Your task to perform on an android device: uninstall "Pinterest" Image 0: 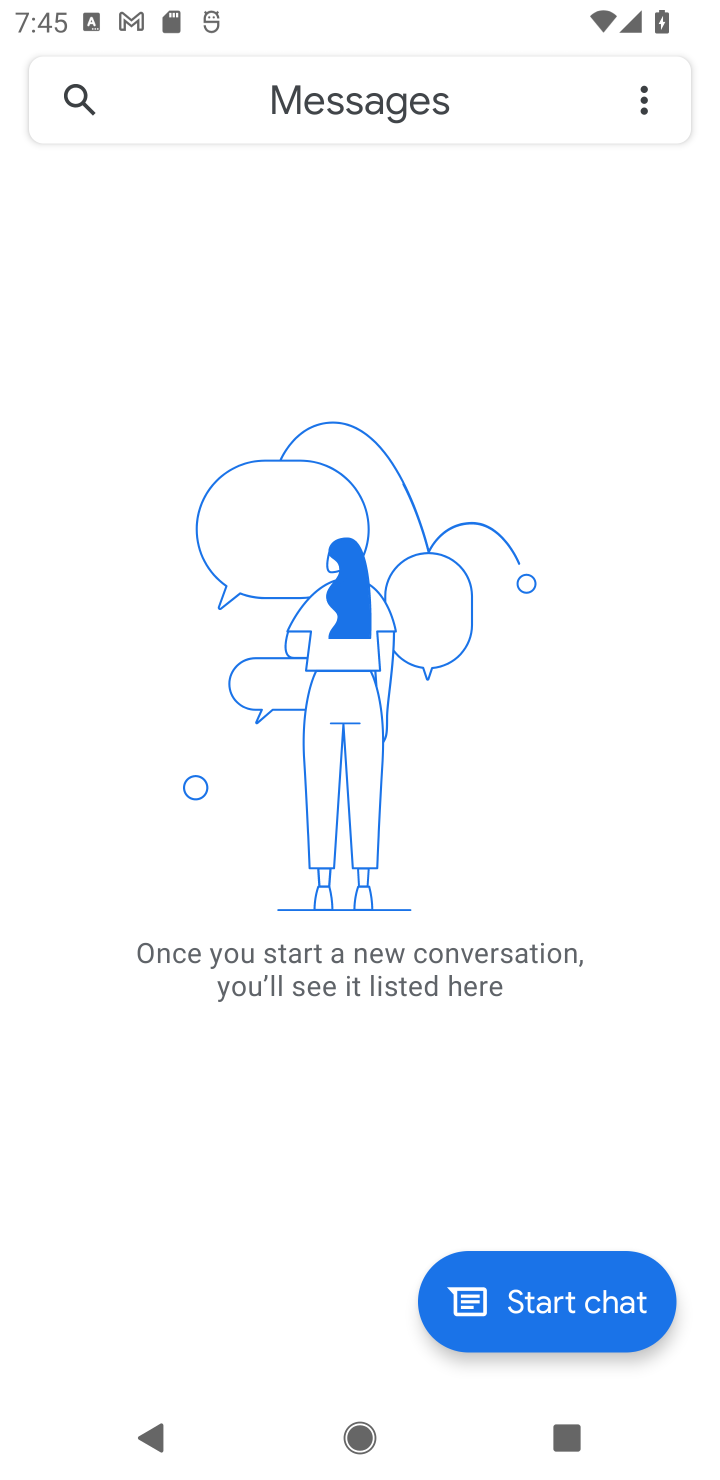
Step 0: press home button
Your task to perform on an android device: uninstall "Pinterest" Image 1: 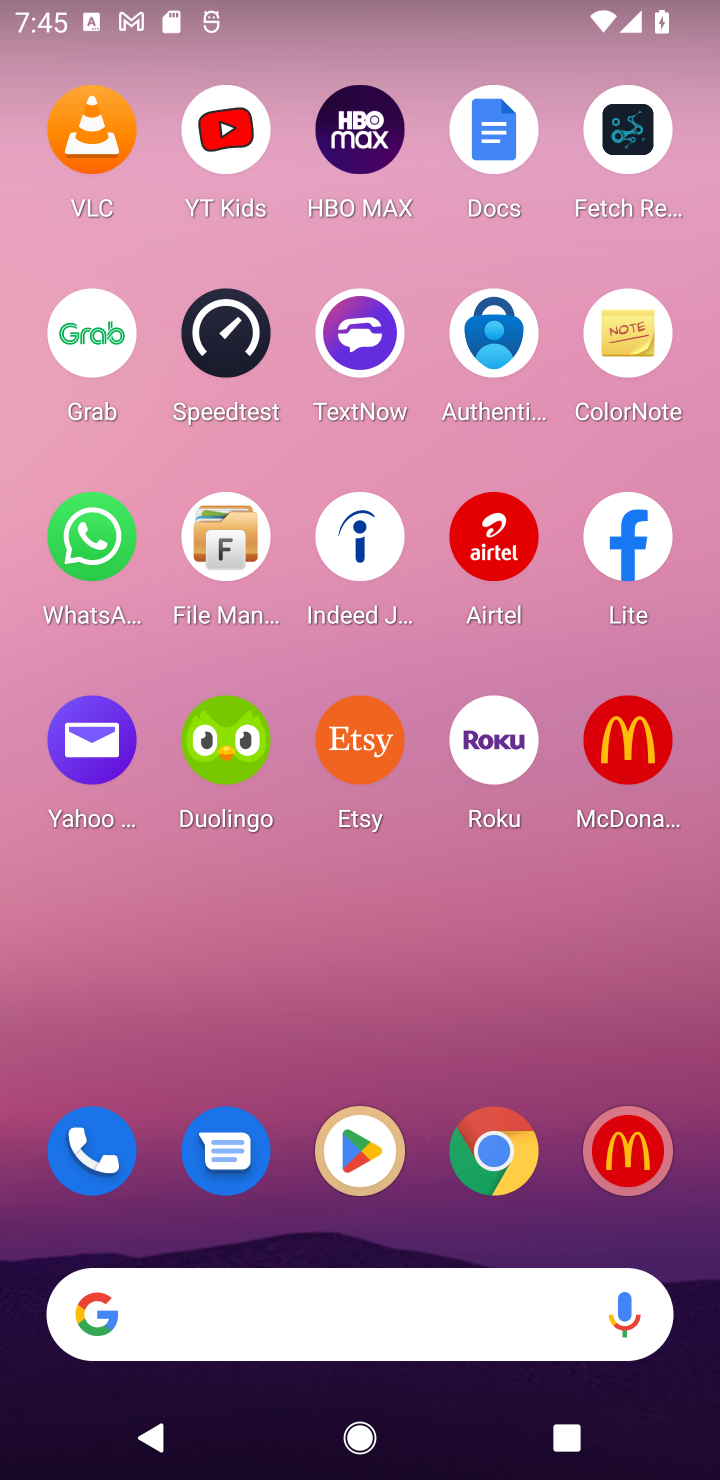
Step 1: press home button
Your task to perform on an android device: uninstall "Pinterest" Image 2: 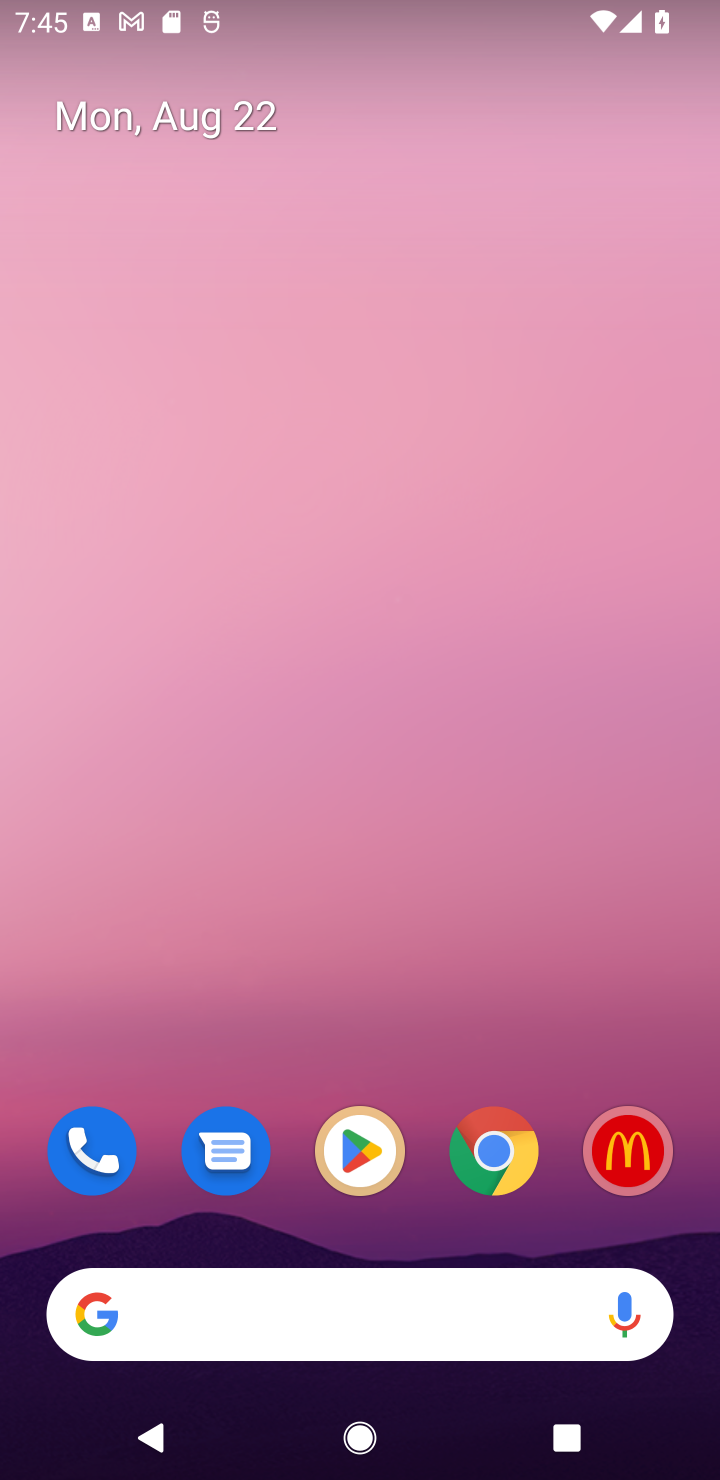
Step 2: click (350, 1155)
Your task to perform on an android device: uninstall "Pinterest" Image 3: 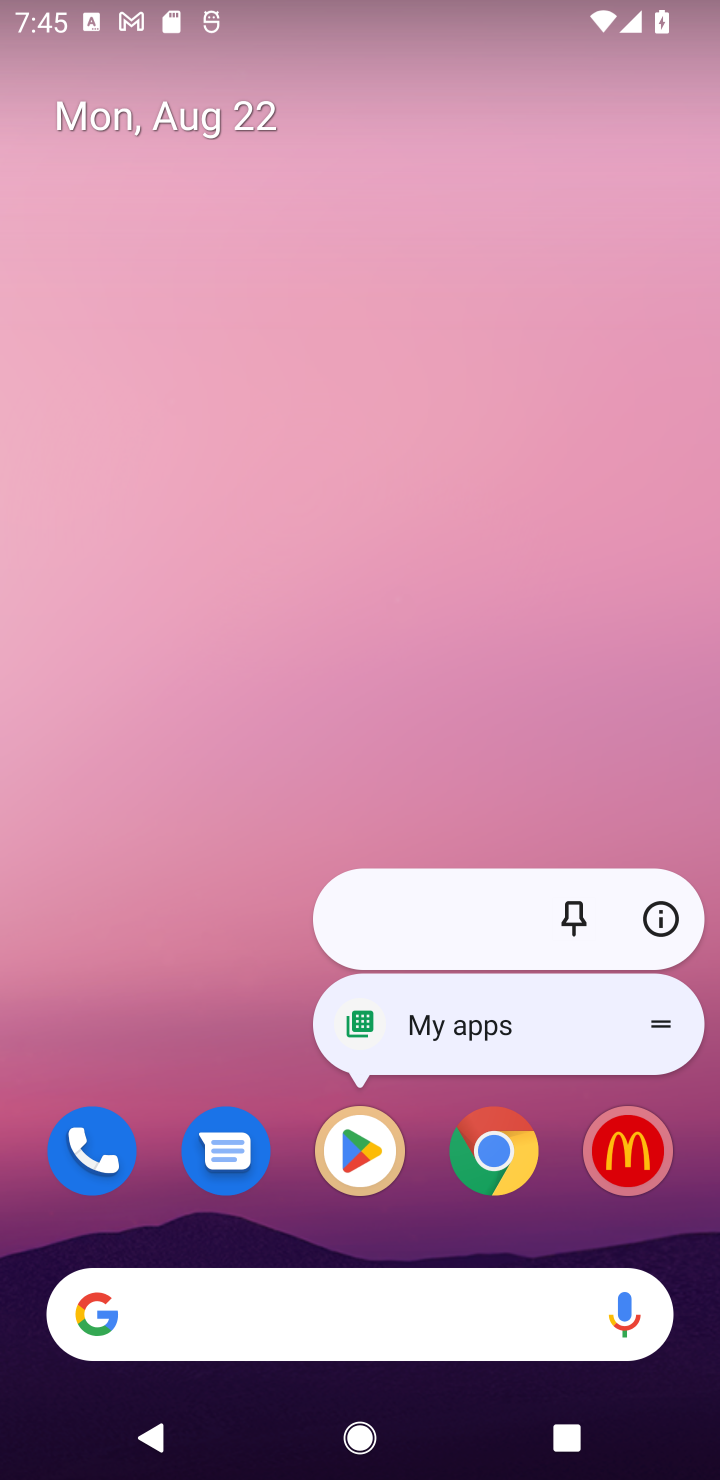
Step 3: click (350, 1160)
Your task to perform on an android device: uninstall "Pinterest" Image 4: 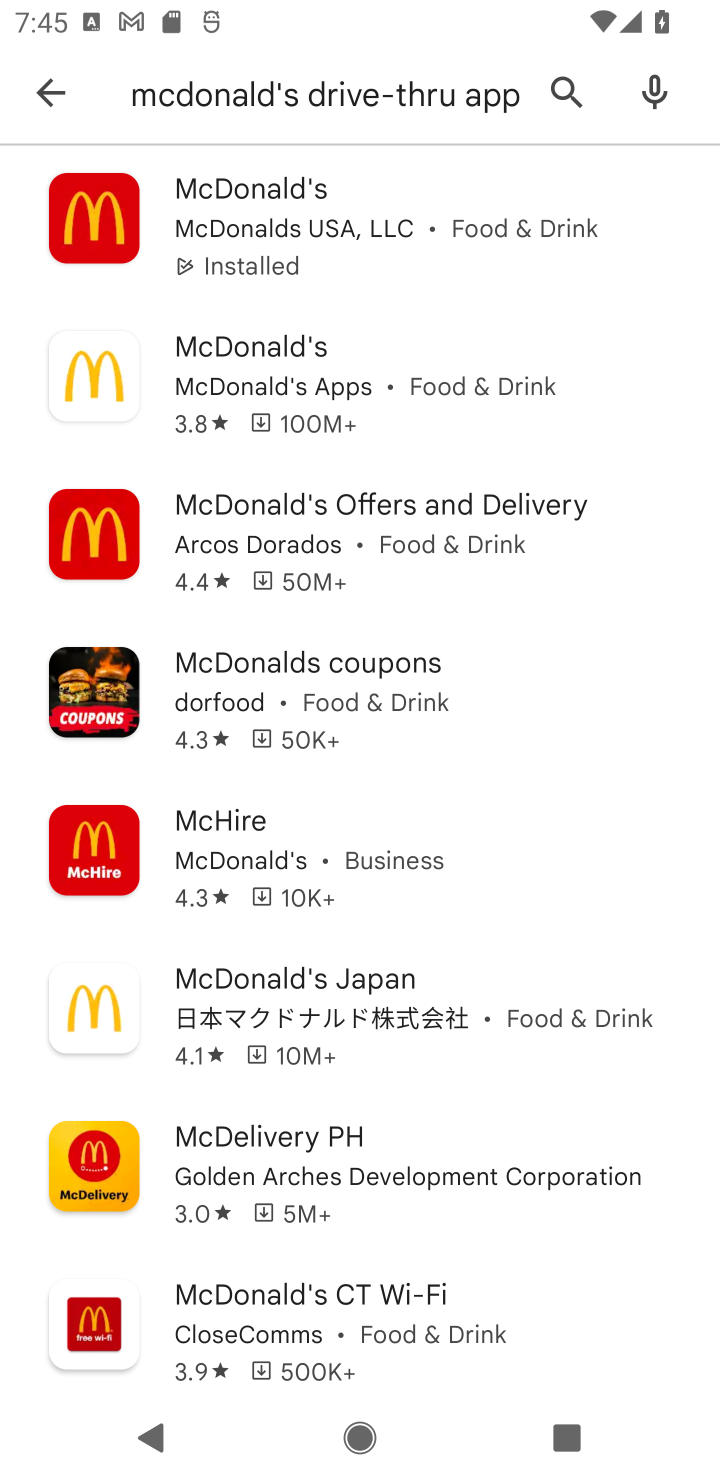
Step 4: click (567, 98)
Your task to perform on an android device: uninstall "Pinterest" Image 5: 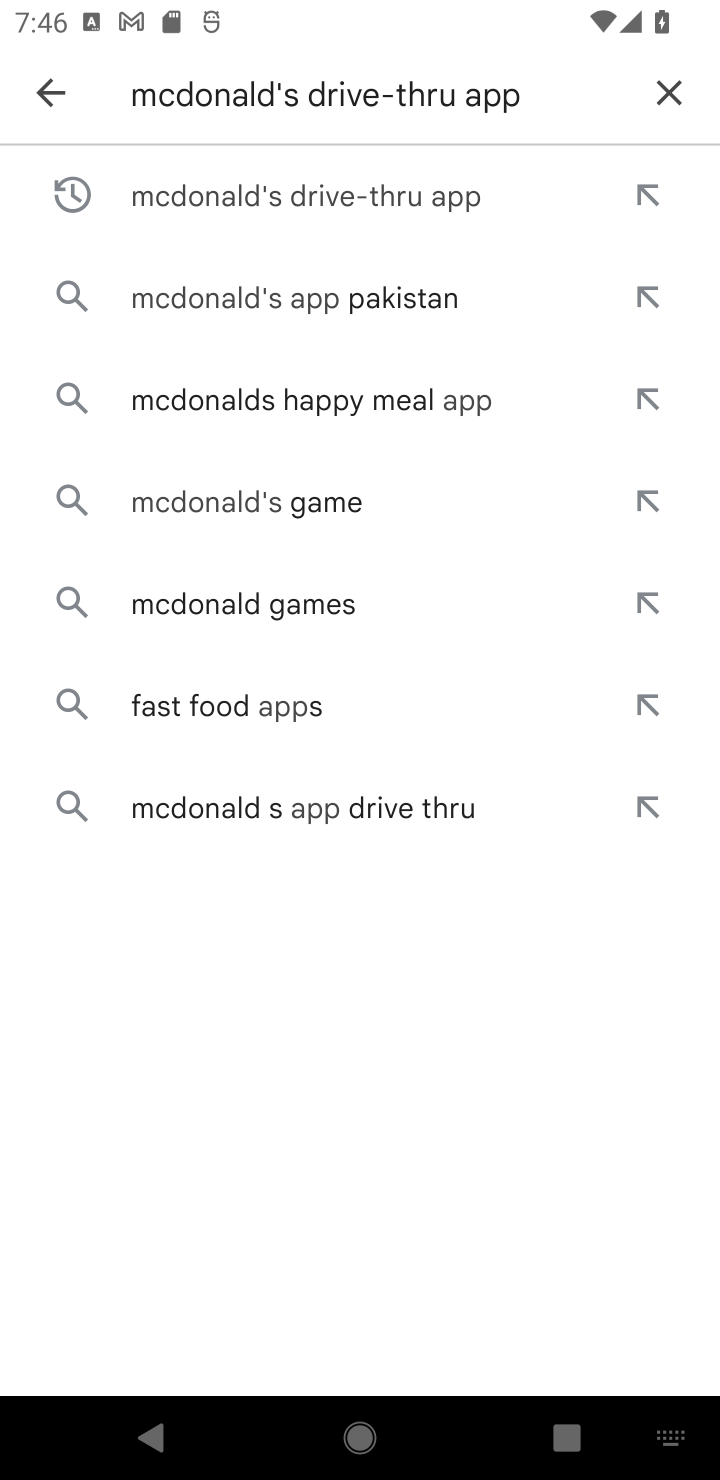
Step 5: click (662, 87)
Your task to perform on an android device: uninstall "Pinterest" Image 6: 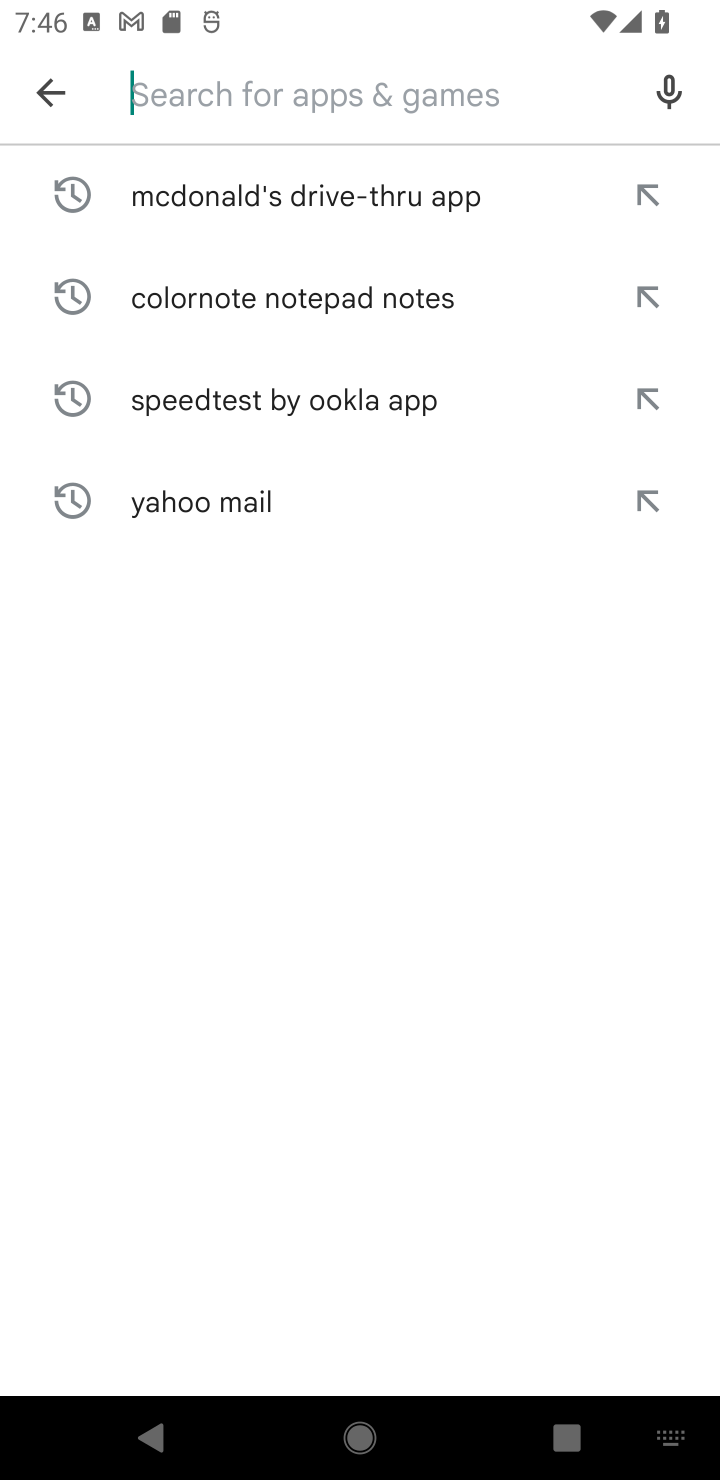
Step 6: type "Pinterest"
Your task to perform on an android device: uninstall "Pinterest" Image 7: 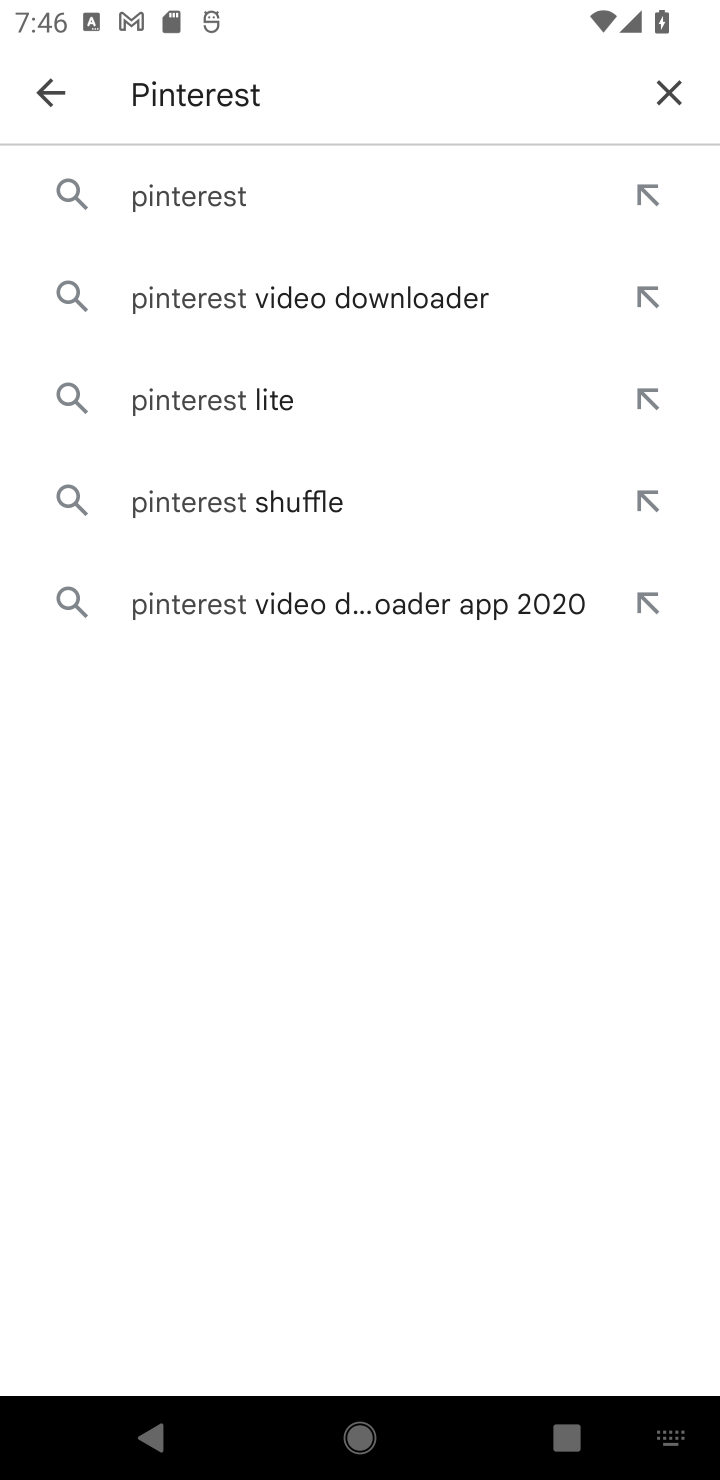
Step 7: click (220, 192)
Your task to perform on an android device: uninstall "Pinterest" Image 8: 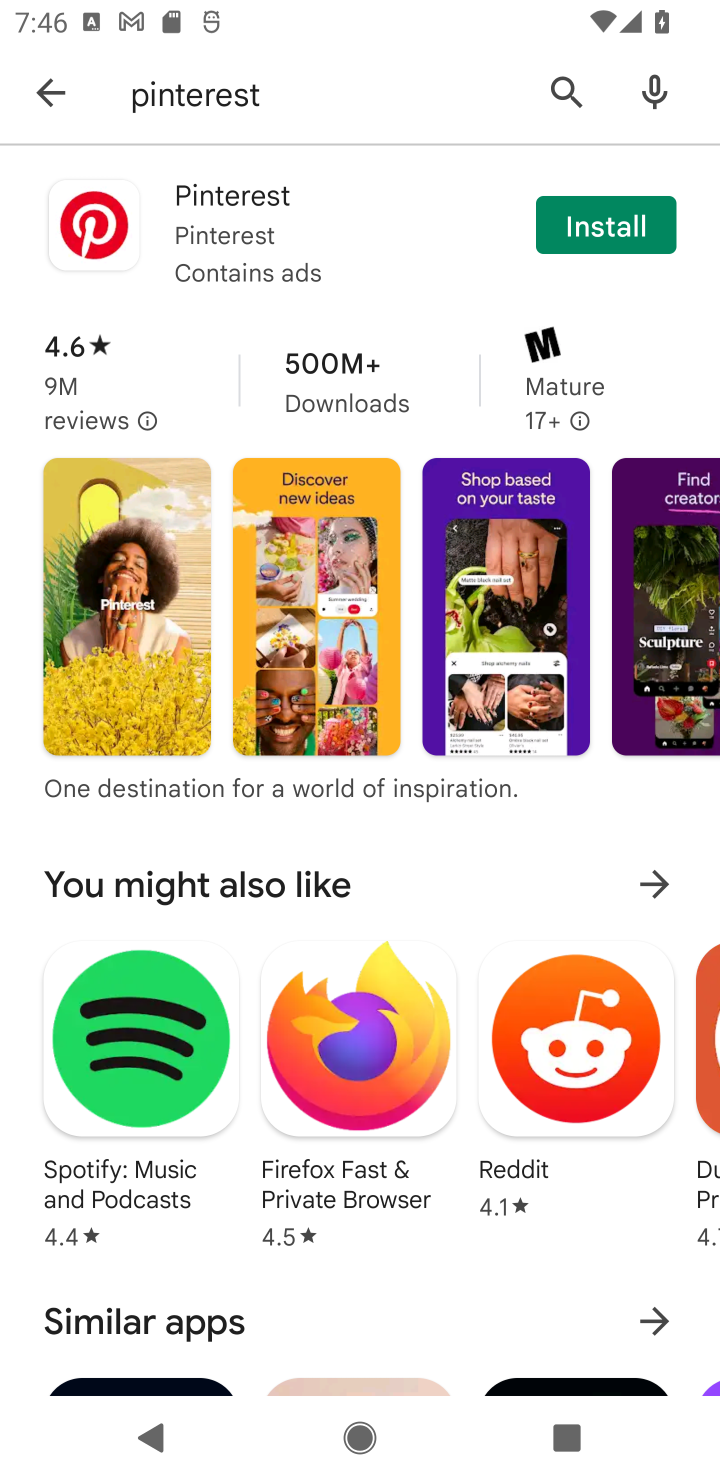
Step 8: task complete